Your task to perform on an android device: turn off airplane mode Image 0: 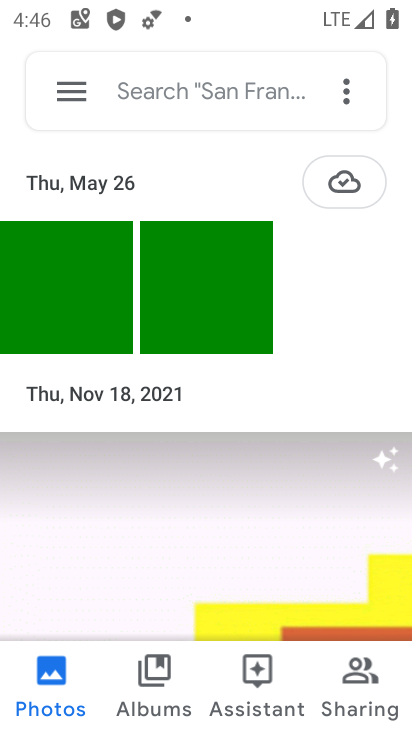
Step 0: press home button
Your task to perform on an android device: turn off airplane mode Image 1: 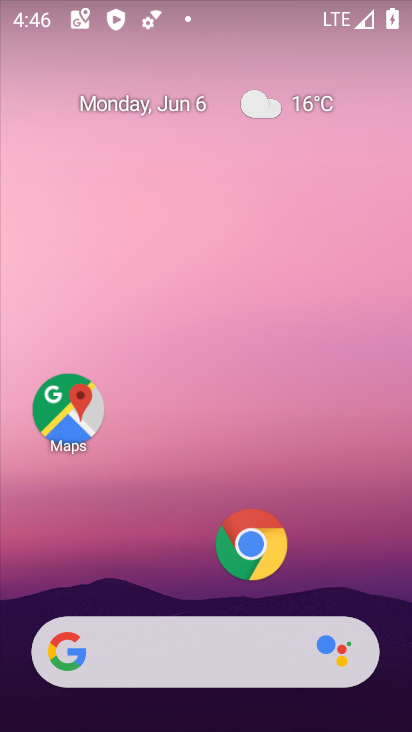
Step 1: task complete